Your task to perform on an android device: Go to Reddit.com Image 0: 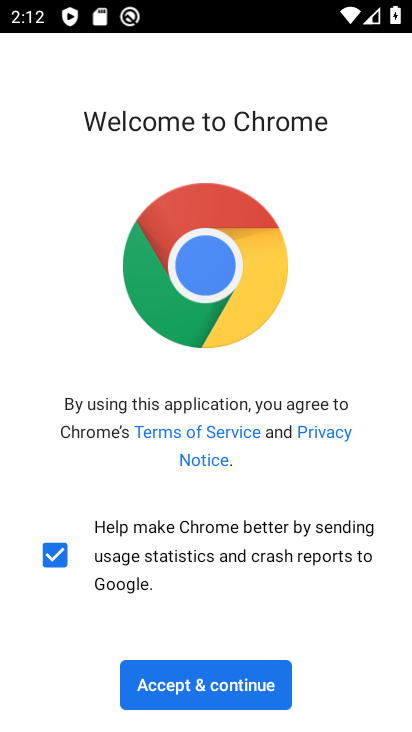
Step 0: press home button
Your task to perform on an android device: Go to Reddit.com Image 1: 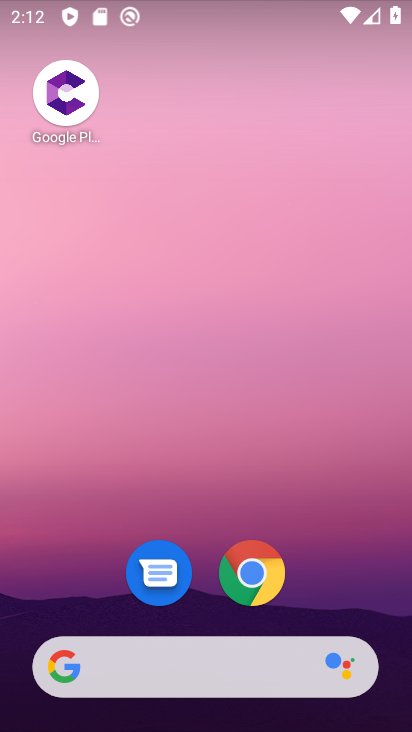
Step 1: click (244, 565)
Your task to perform on an android device: Go to Reddit.com Image 2: 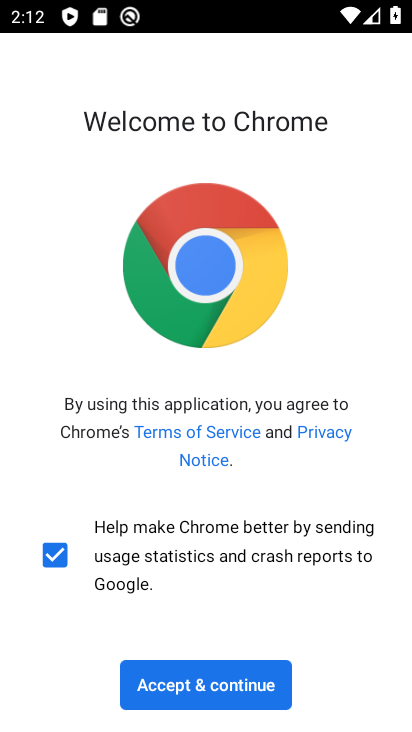
Step 2: click (222, 677)
Your task to perform on an android device: Go to Reddit.com Image 3: 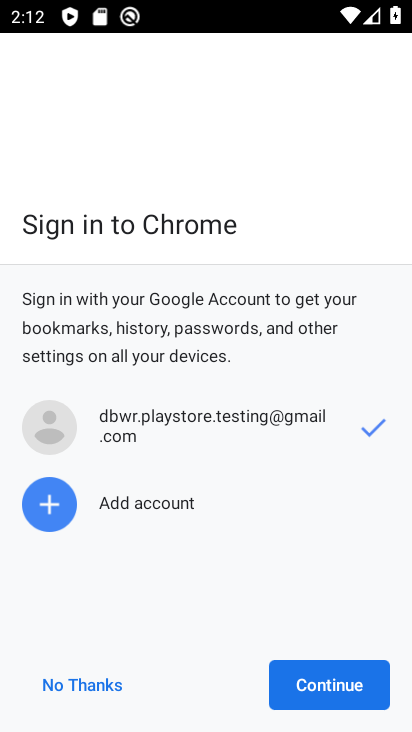
Step 3: click (285, 679)
Your task to perform on an android device: Go to Reddit.com Image 4: 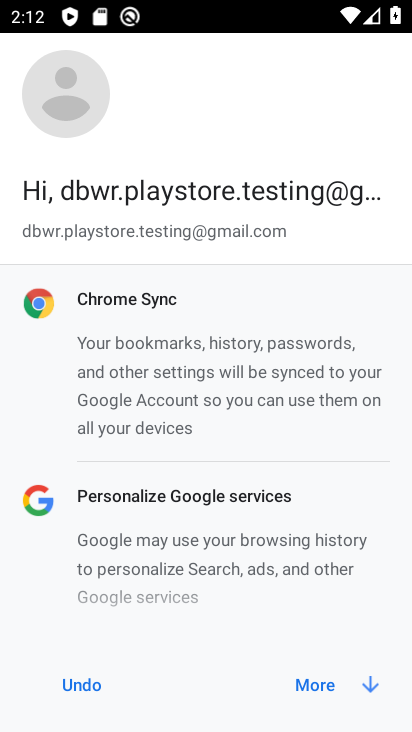
Step 4: click (324, 676)
Your task to perform on an android device: Go to Reddit.com Image 5: 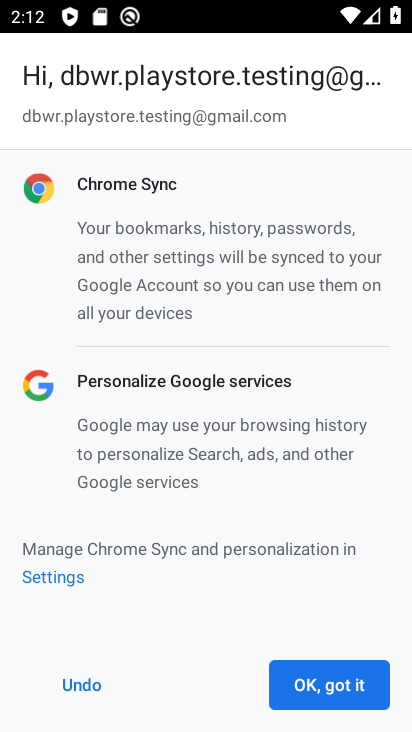
Step 5: click (324, 676)
Your task to perform on an android device: Go to Reddit.com Image 6: 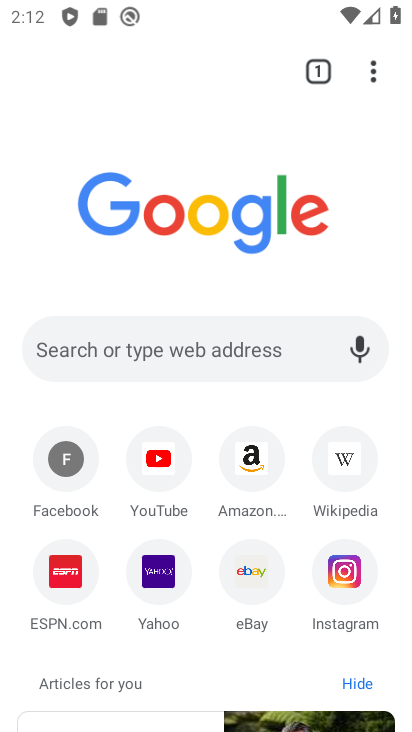
Step 6: click (141, 340)
Your task to perform on an android device: Go to Reddit.com Image 7: 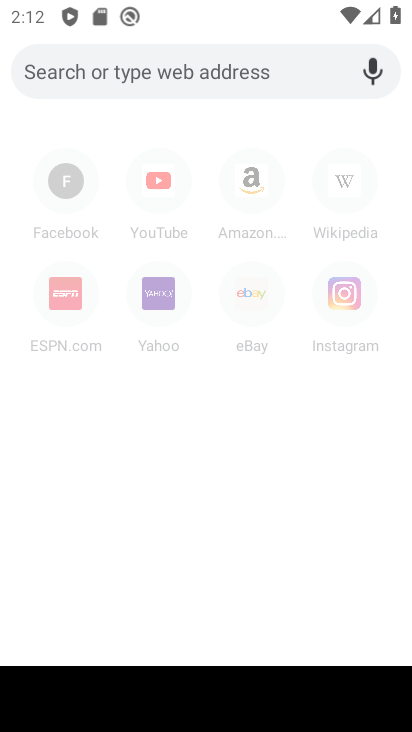
Step 7: type "Reddit.com"
Your task to perform on an android device: Go to Reddit.com Image 8: 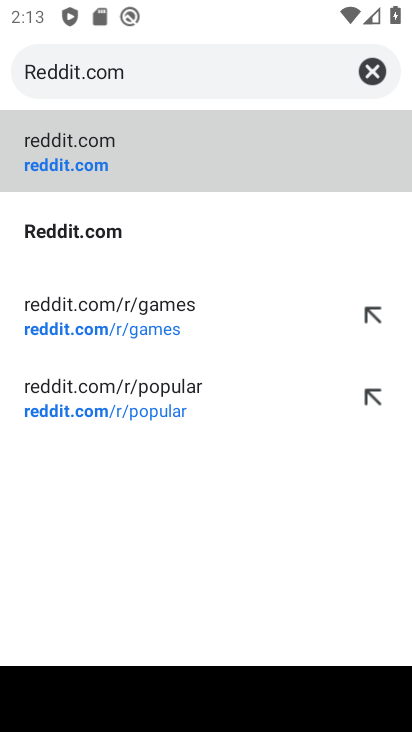
Step 8: click (148, 171)
Your task to perform on an android device: Go to Reddit.com Image 9: 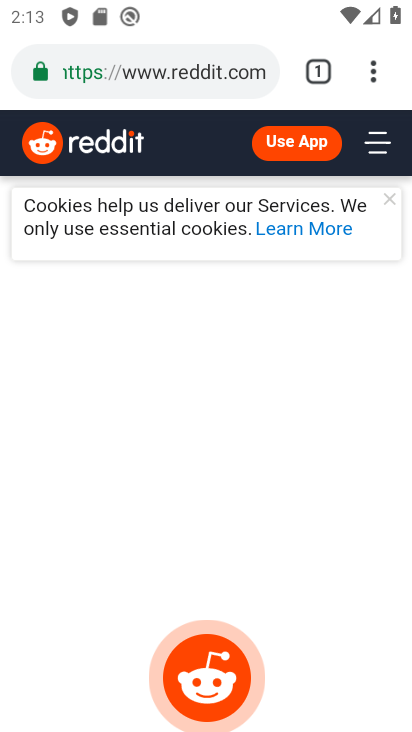
Step 9: task complete